Your task to perform on an android device: Go to Android settings Image 0: 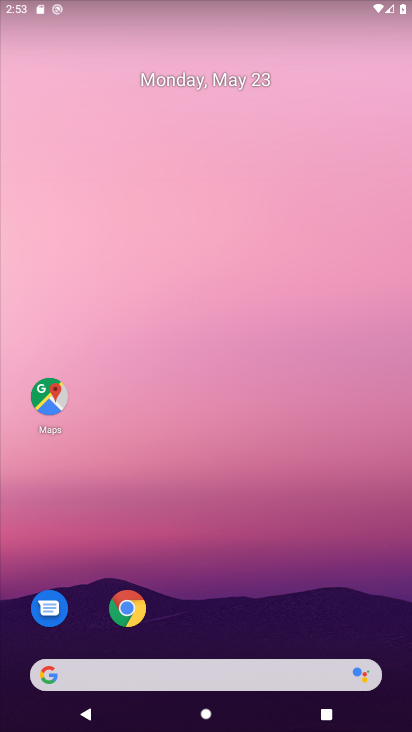
Step 0: drag from (258, 630) to (200, 135)
Your task to perform on an android device: Go to Android settings Image 1: 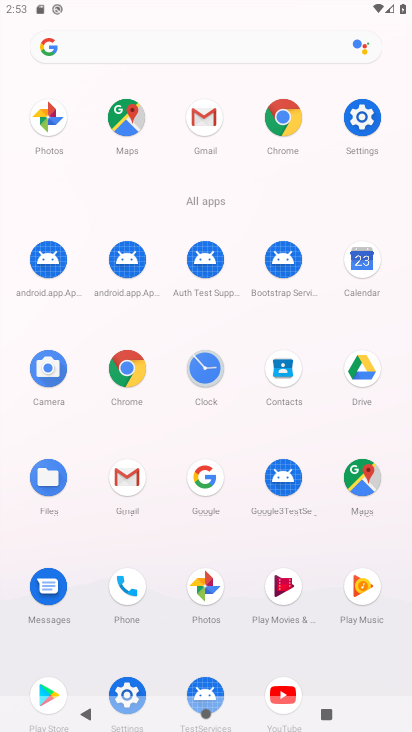
Step 1: click (361, 120)
Your task to perform on an android device: Go to Android settings Image 2: 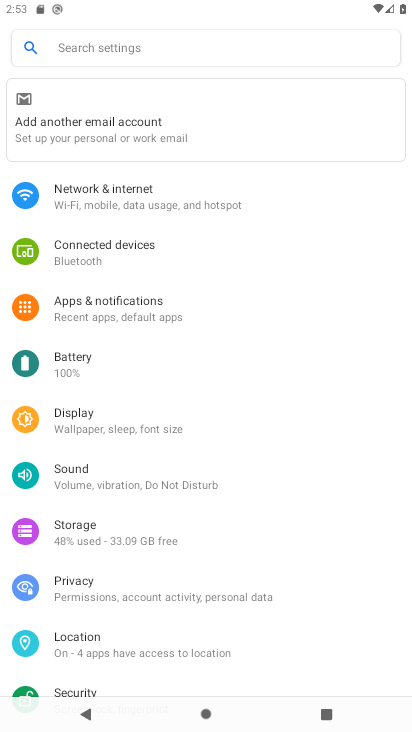
Step 2: task complete